Your task to perform on an android device: Set the phone to "Do not disturb". Image 0: 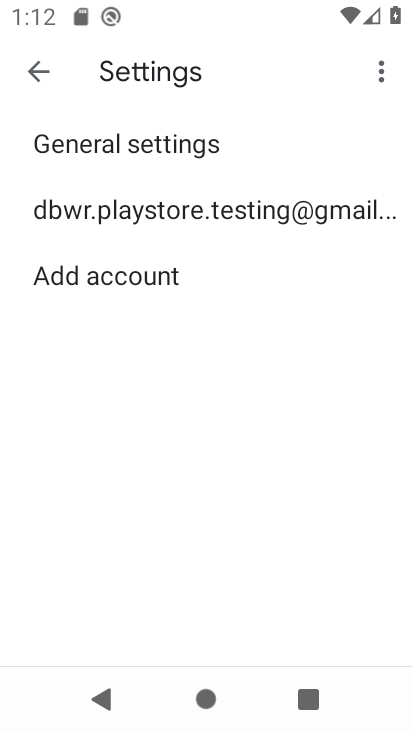
Step 0: press home button
Your task to perform on an android device: Set the phone to "Do not disturb". Image 1: 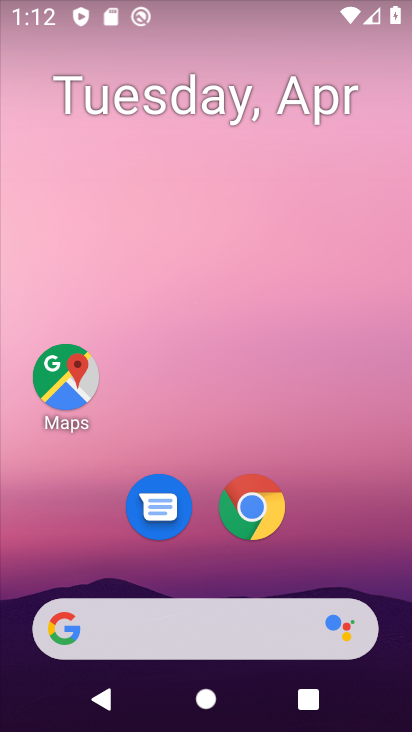
Step 1: drag from (50, 538) to (109, 358)
Your task to perform on an android device: Set the phone to "Do not disturb". Image 2: 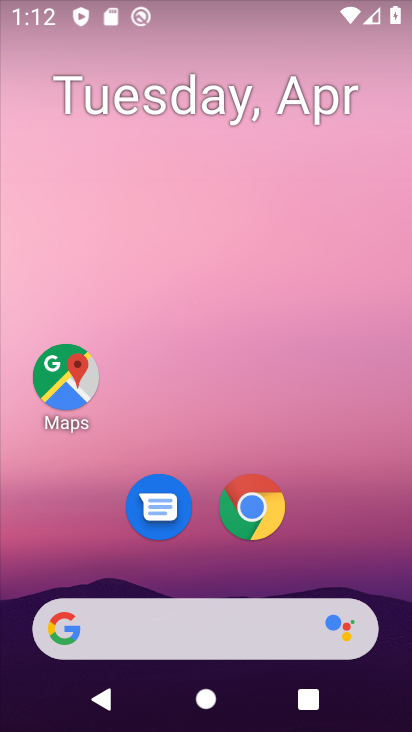
Step 2: drag from (323, 477) to (323, 306)
Your task to perform on an android device: Set the phone to "Do not disturb". Image 3: 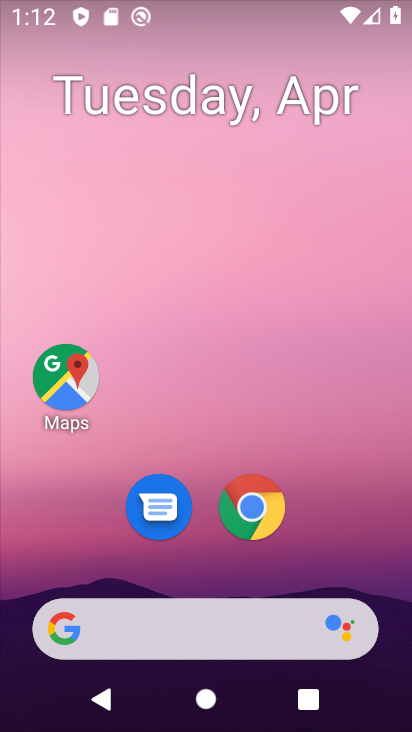
Step 3: click (319, 262)
Your task to perform on an android device: Set the phone to "Do not disturb". Image 4: 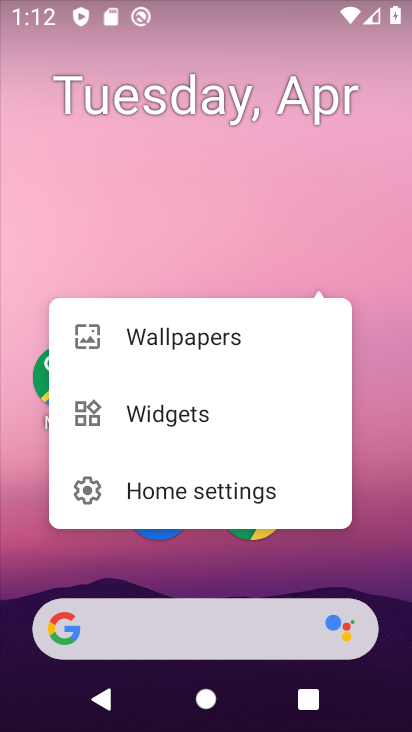
Step 4: click (303, 227)
Your task to perform on an android device: Set the phone to "Do not disturb". Image 5: 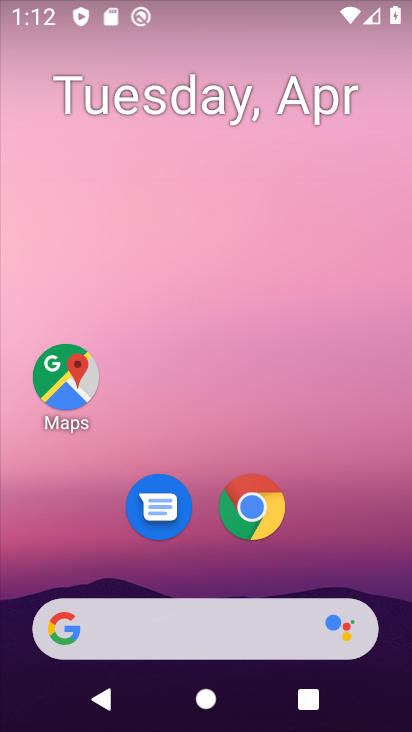
Step 5: drag from (363, 480) to (223, 94)
Your task to perform on an android device: Set the phone to "Do not disturb". Image 6: 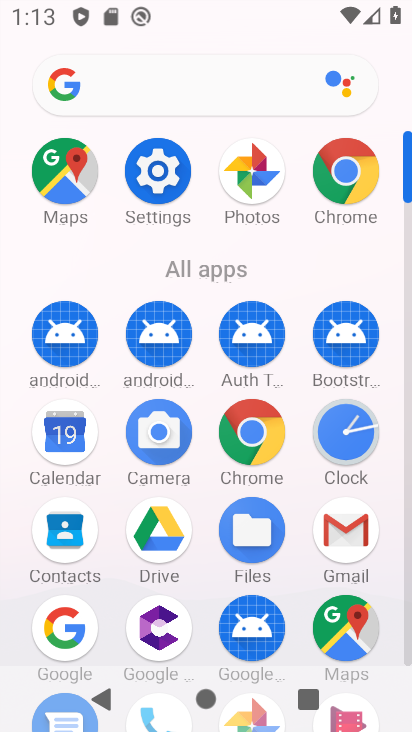
Step 6: click (166, 209)
Your task to perform on an android device: Set the phone to "Do not disturb". Image 7: 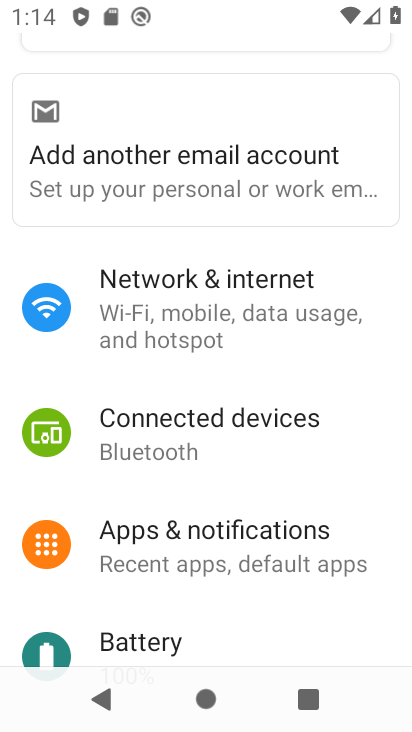
Step 7: drag from (230, 542) to (236, 193)
Your task to perform on an android device: Set the phone to "Do not disturb". Image 8: 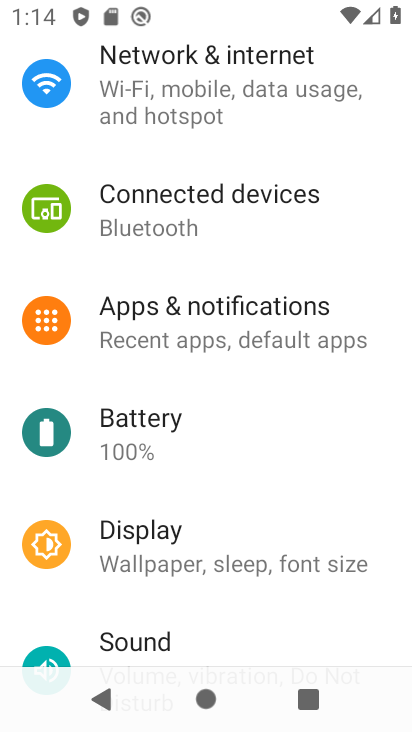
Step 8: drag from (264, 571) to (275, 367)
Your task to perform on an android device: Set the phone to "Do not disturb". Image 9: 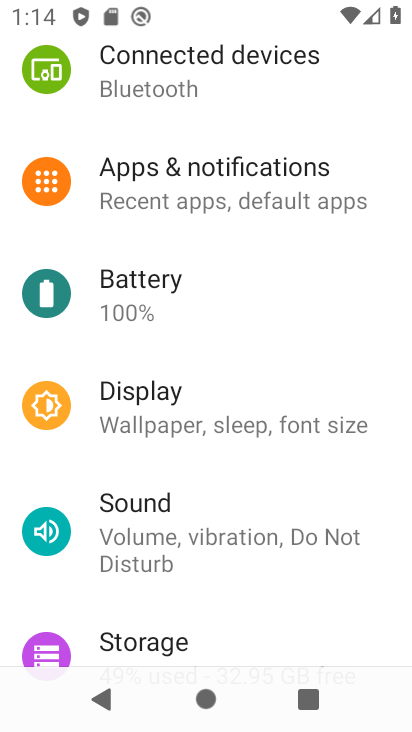
Step 9: click (278, 532)
Your task to perform on an android device: Set the phone to "Do not disturb". Image 10: 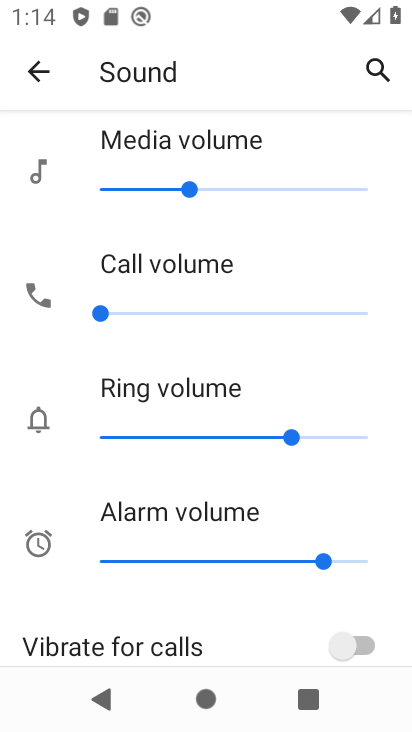
Step 10: drag from (244, 632) to (258, 204)
Your task to perform on an android device: Set the phone to "Do not disturb". Image 11: 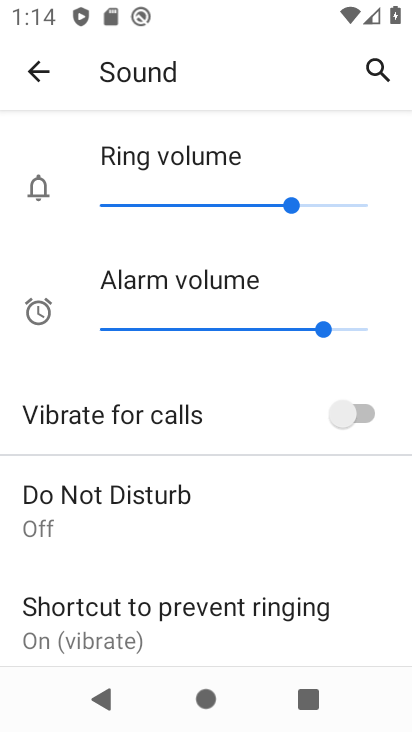
Step 11: click (231, 482)
Your task to perform on an android device: Set the phone to "Do not disturb". Image 12: 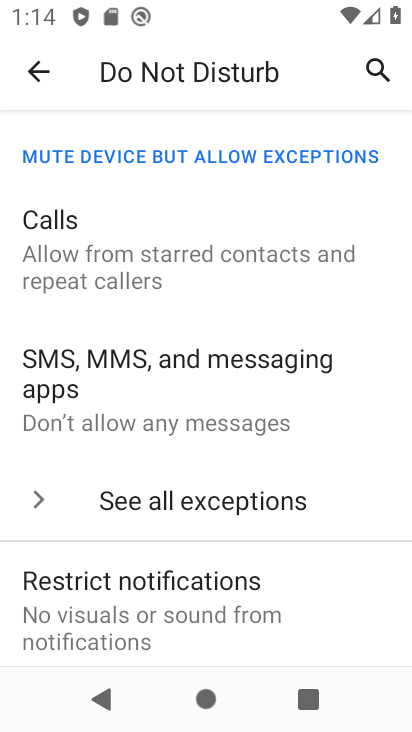
Step 12: drag from (224, 595) to (193, 111)
Your task to perform on an android device: Set the phone to "Do not disturb". Image 13: 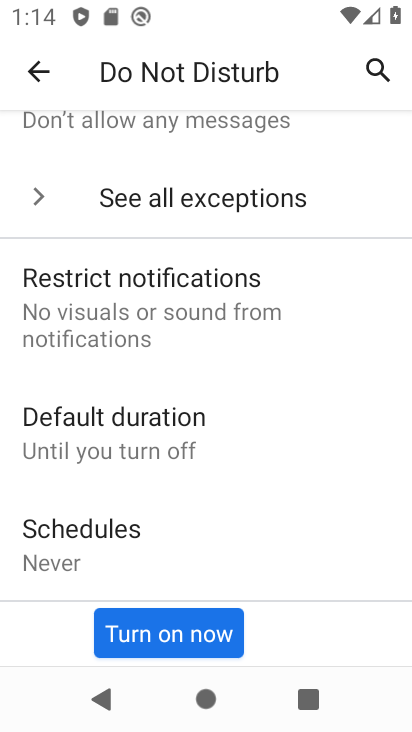
Step 13: click (201, 610)
Your task to perform on an android device: Set the phone to "Do not disturb". Image 14: 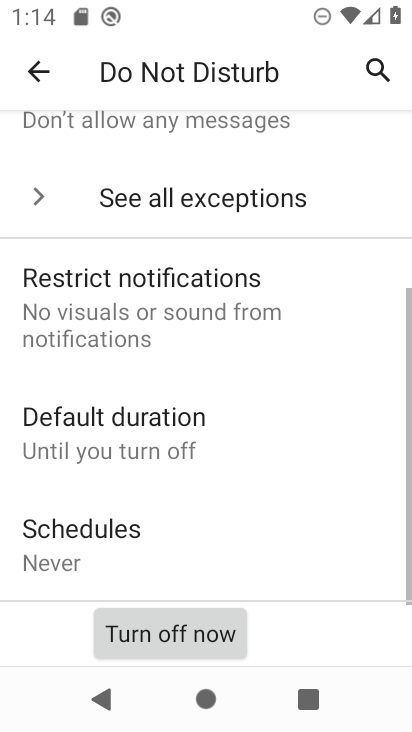
Step 14: task complete